Your task to perform on an android device: What's on my calendar tomorrow? Image 0: 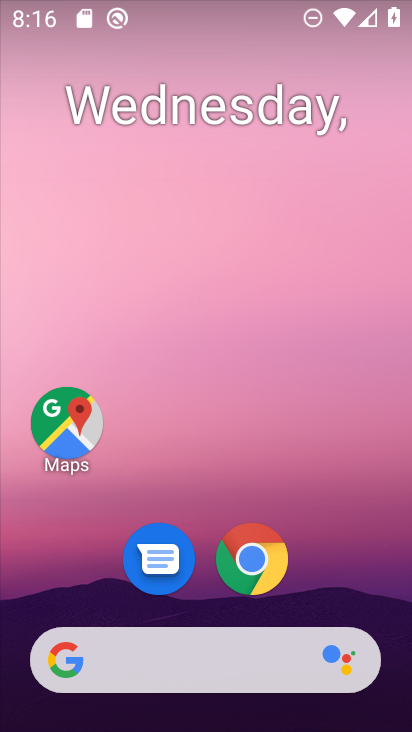
Step 0: drag from (227, 637) to (401, 7)
Your task to perform on an android device: What's on my calendar tomorrow? Image 1: 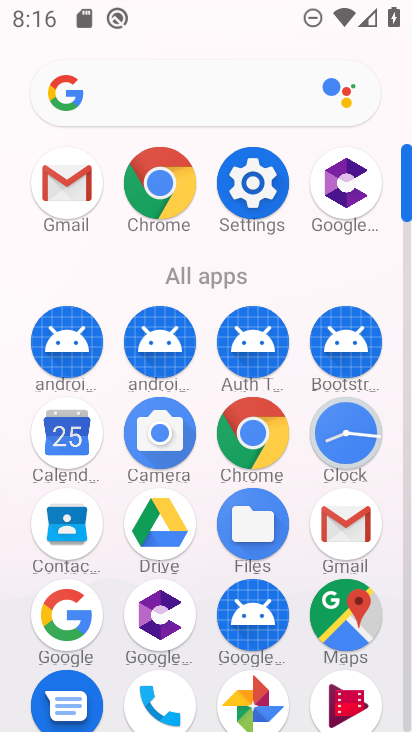
Step 1: click (79, 449)
Your task to perform on an android device: What's on my calendar tomorrow? Image 2: 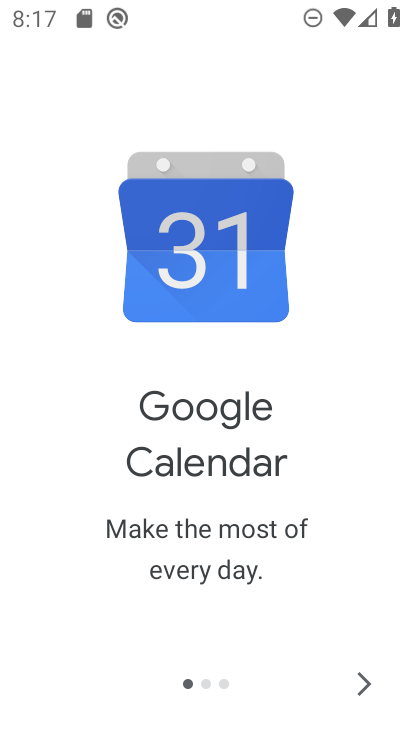
Step 2: click (368, 685)
Your task to perform on an android device: What's on my calendar tomorrow? Image 3: 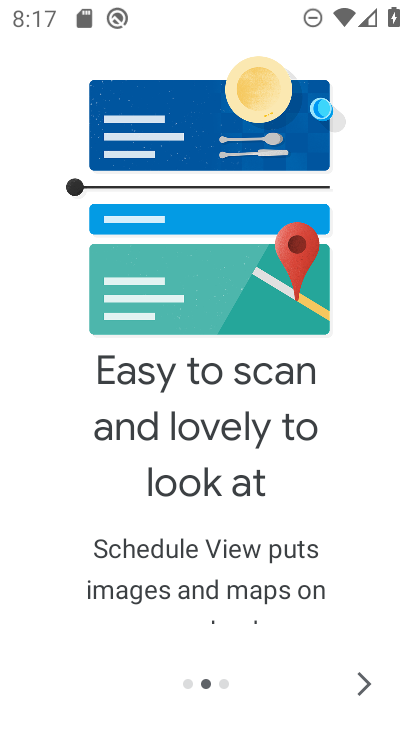
Step 3: click (368, 685)
Your task to perform on an android device: What's on my calendar tomorrow? Image 4: 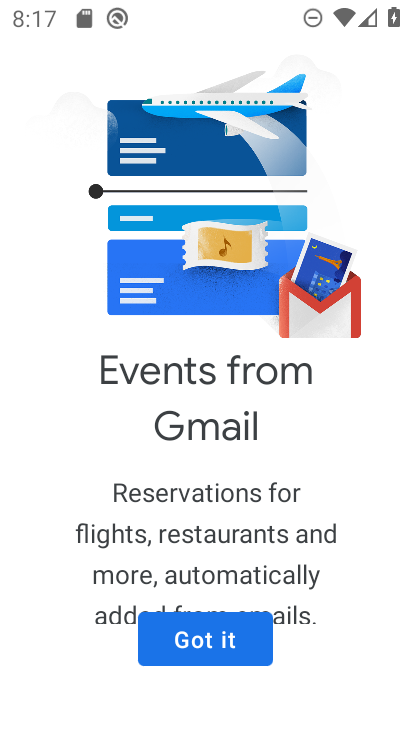
Step 4: click (216, 637)
Your task to perform on an android device: What's on my calendar tomorrow? Image 5: 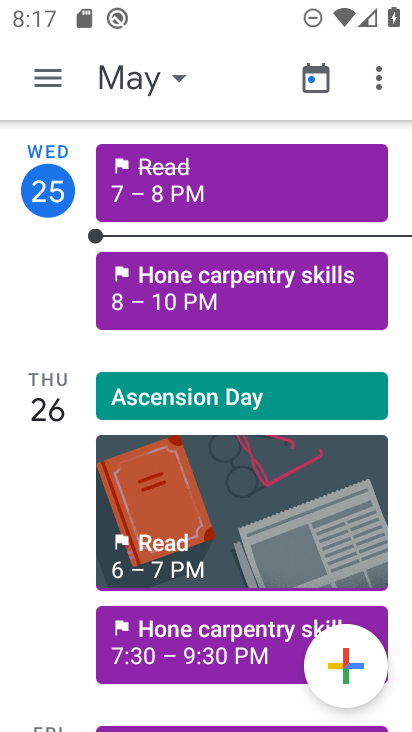
Step 5: click (127, 81)
Your task to perform on an android device: What's on my calendar tomorrow? Image 6: 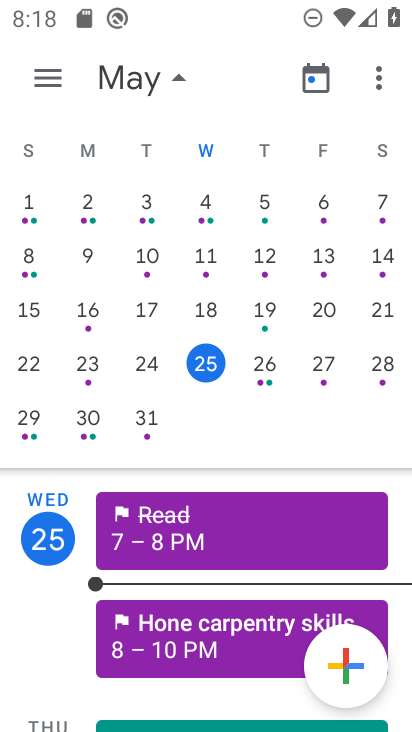
Step 6: click (258, 381)
Your task to perform on an android device: What's on my calendar tomorrow? Image 7: 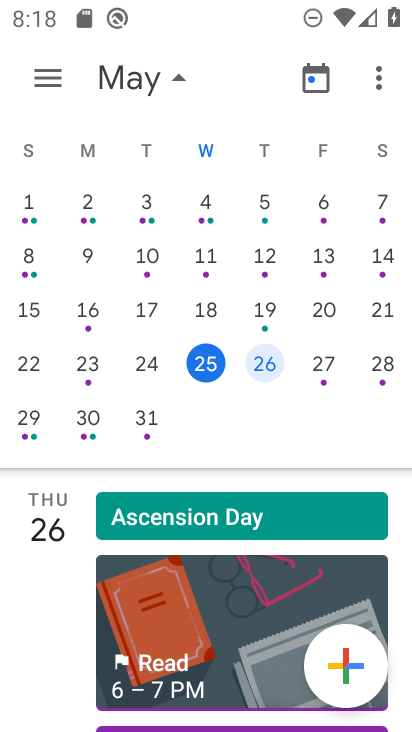
Step 7: click (326, 368)
Your task to perform on an android device: What's on my calendar tomorrow? Image 8: 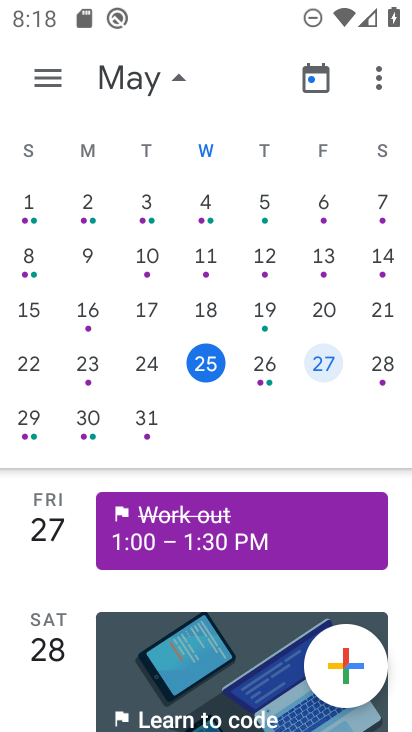
Step 8: task complete